Your task to perform on an android device: uninstall "Google Sheets" Image 0: 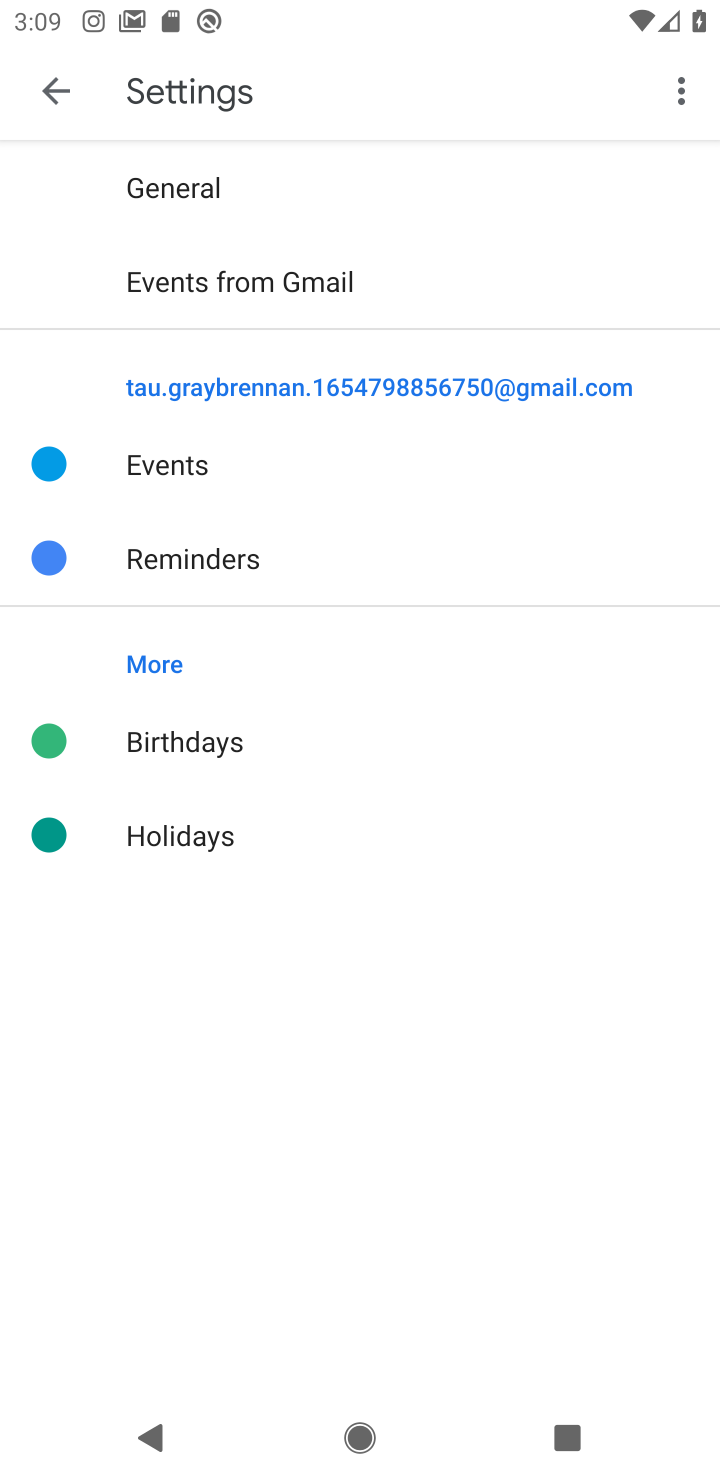
Step 0: press home button
Your task to perform on an android device: uninstall "Google Sheets" Image 1: 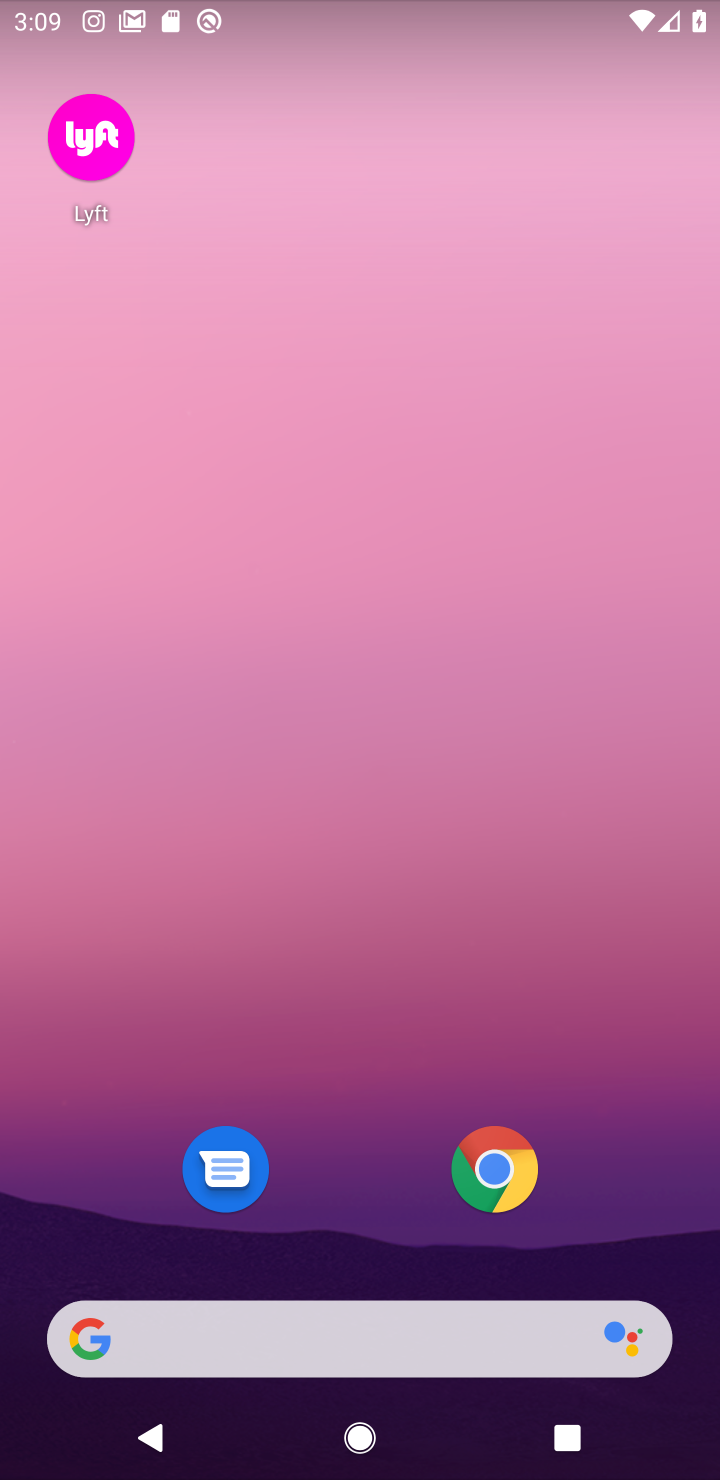
Step 1: drag from (338, 122) to (365, 43)
Your task to perform on an android device: uninstall "Google Sheets" Image 2: 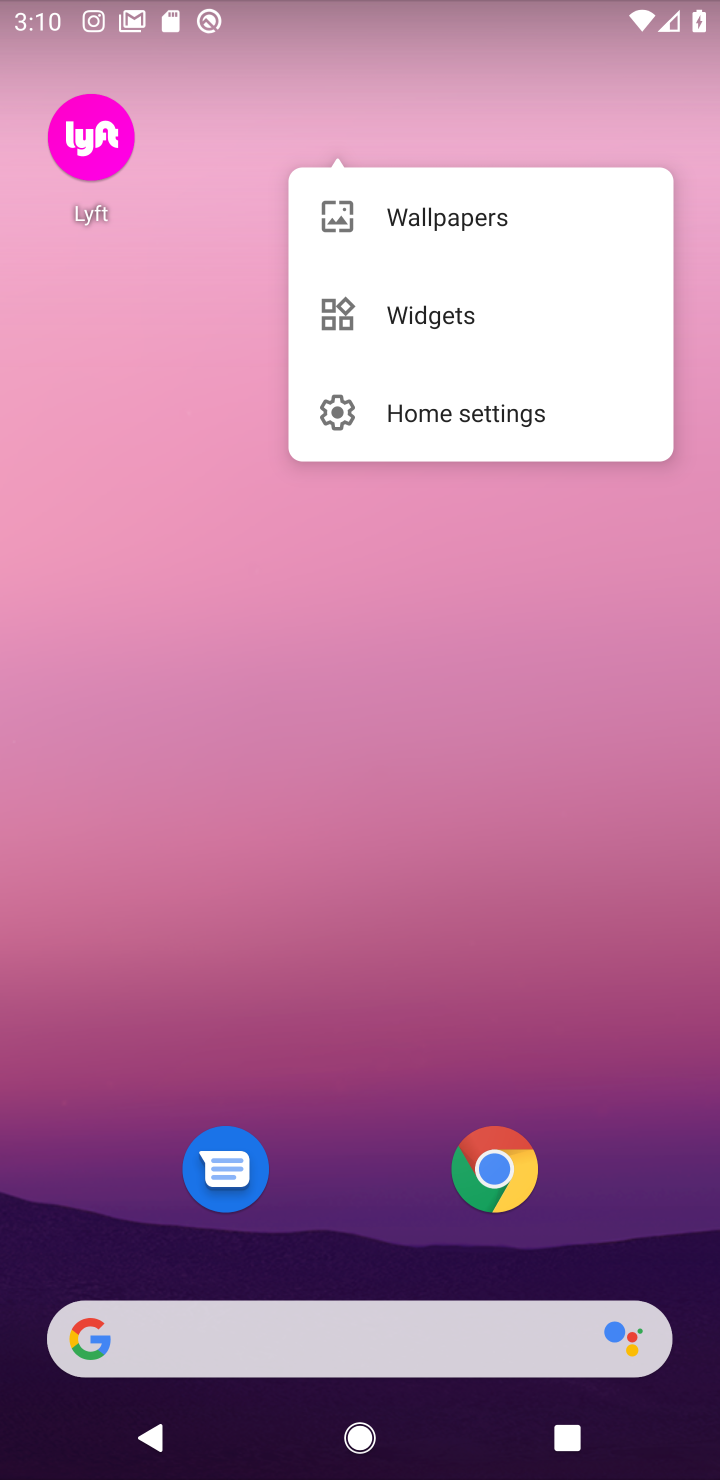
Step 2: click (299, 1141)
Your task to perform on an android device: uninstall "Google Sheets" Image 3: 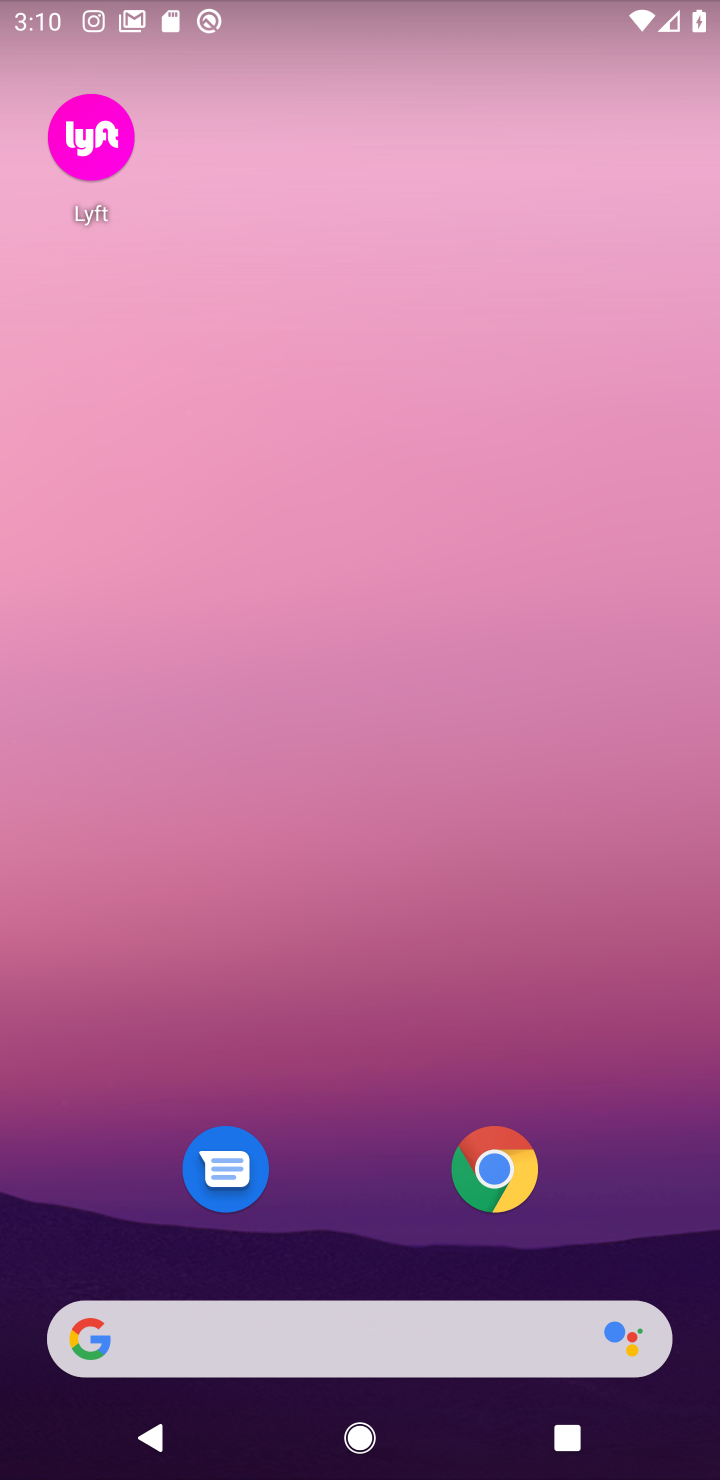
Step 3: drag from (284, 780) to (310, 147)
Your task to perform on an android device: uninstall "Google Sheets" Image 4: 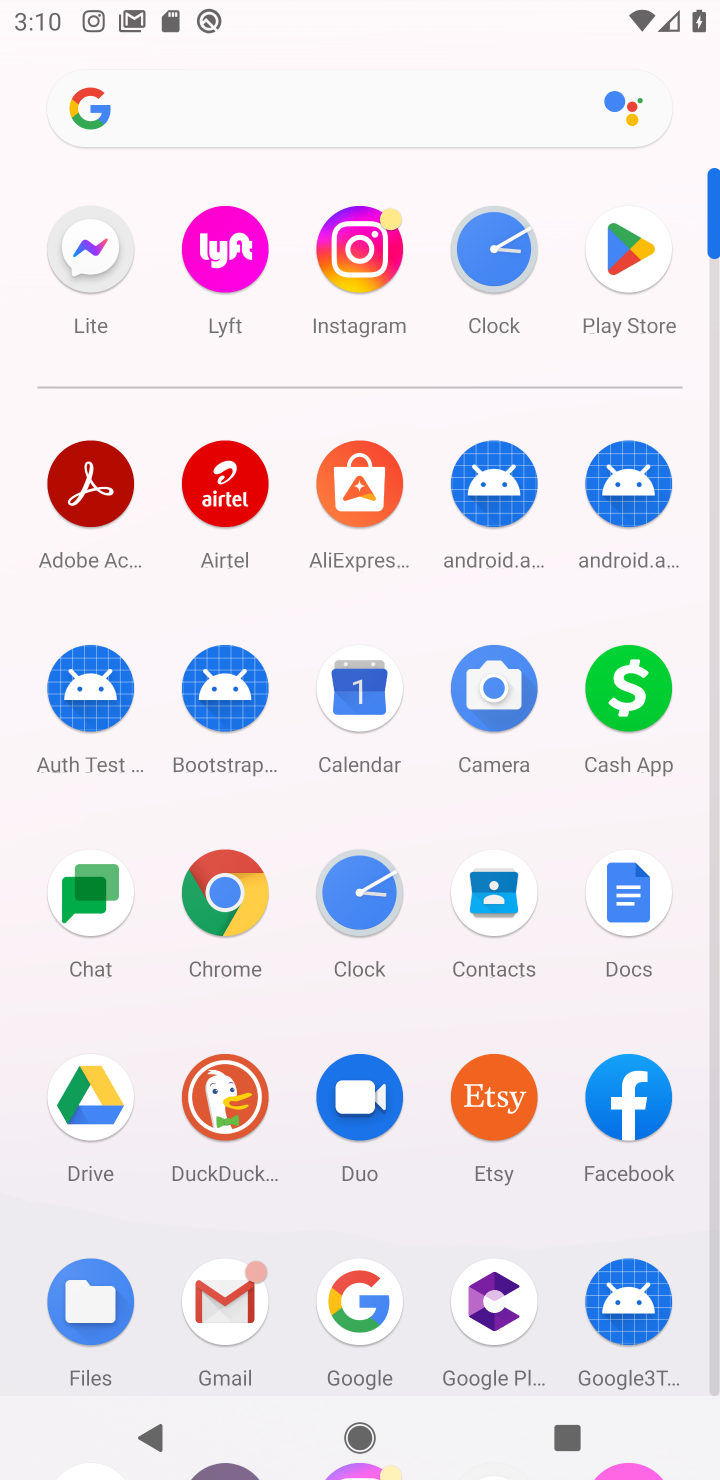
Step 4: click (638, 270)
Your task to perform on an android device: uninstall "Google Sheets" Image 5: 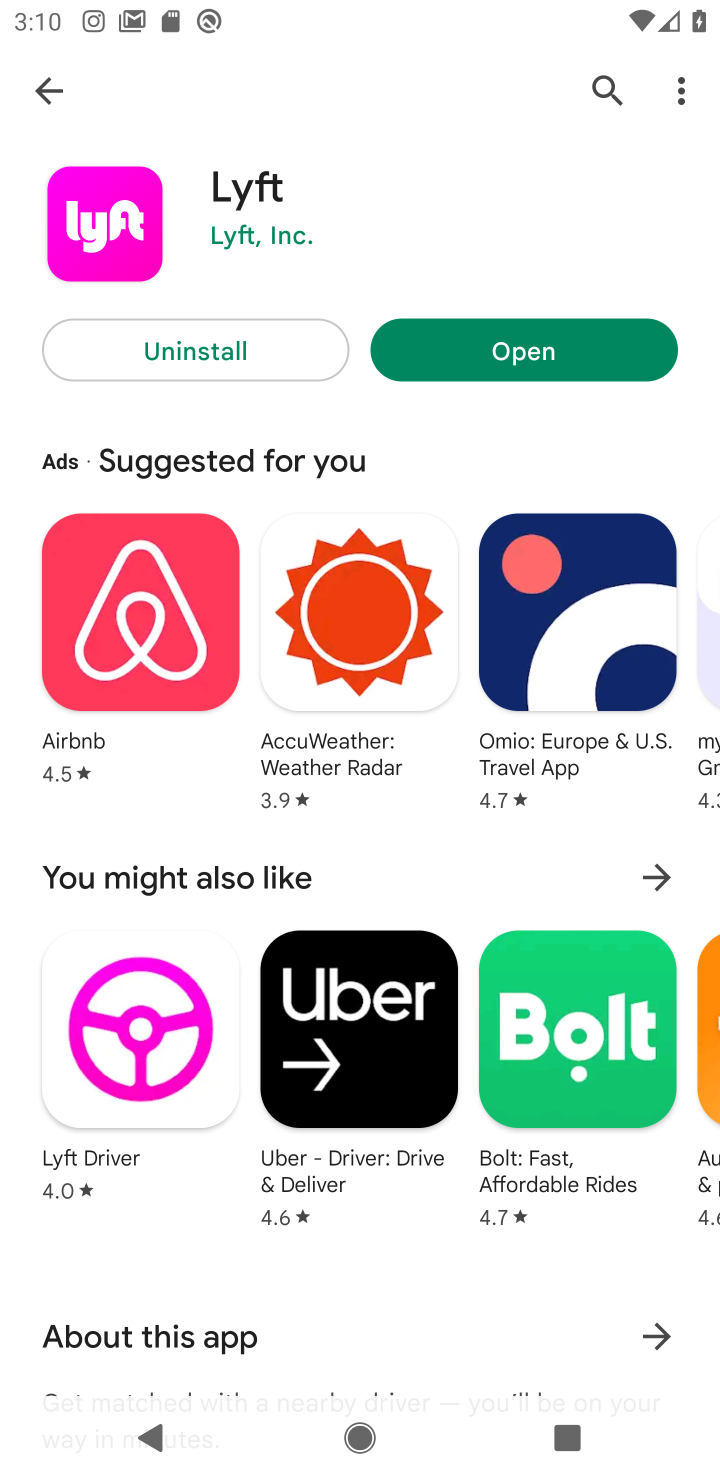
Step 5: click (44, 82)
Your task to perform on an android device: uninstall "Google Sheets" Image 6: 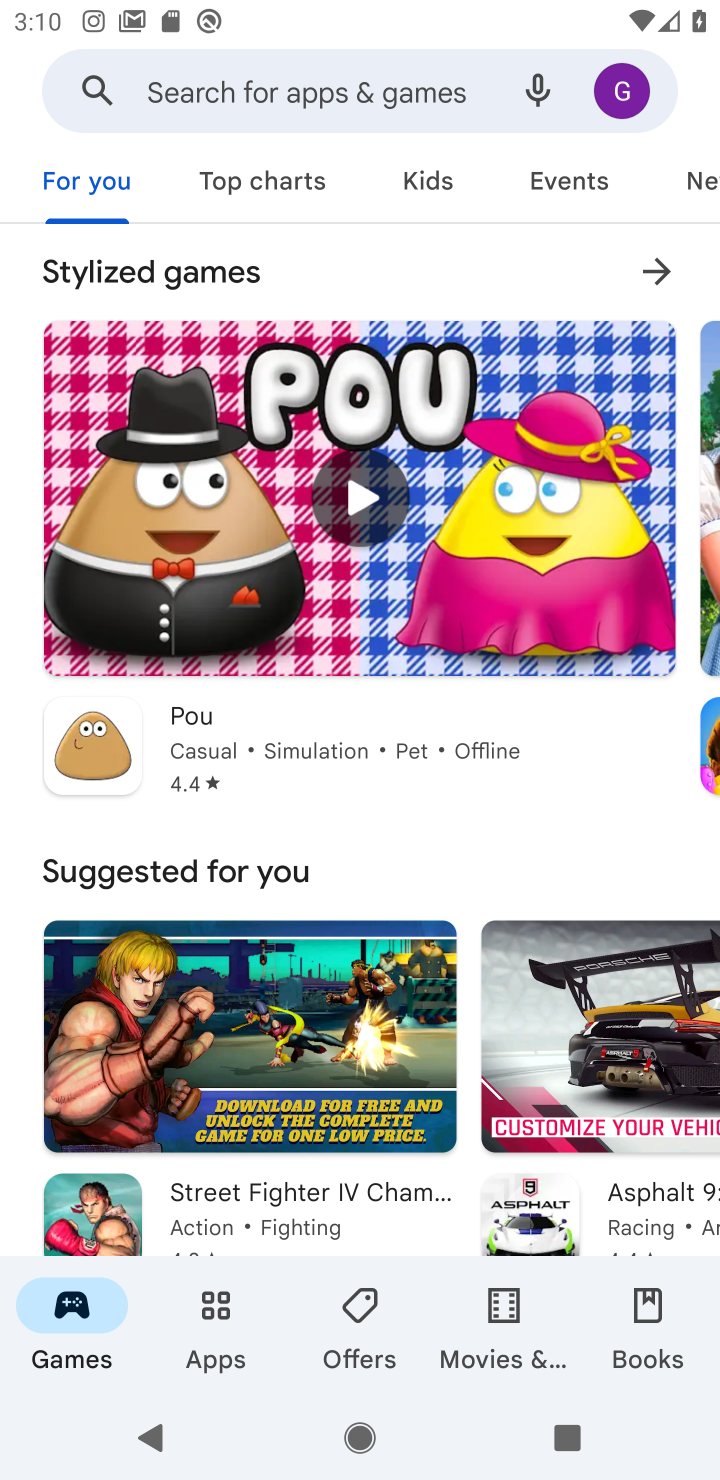
Step 6: click (207, 104)
Your task to perform on an android device: uninstall "Google Sheets" Image 7: 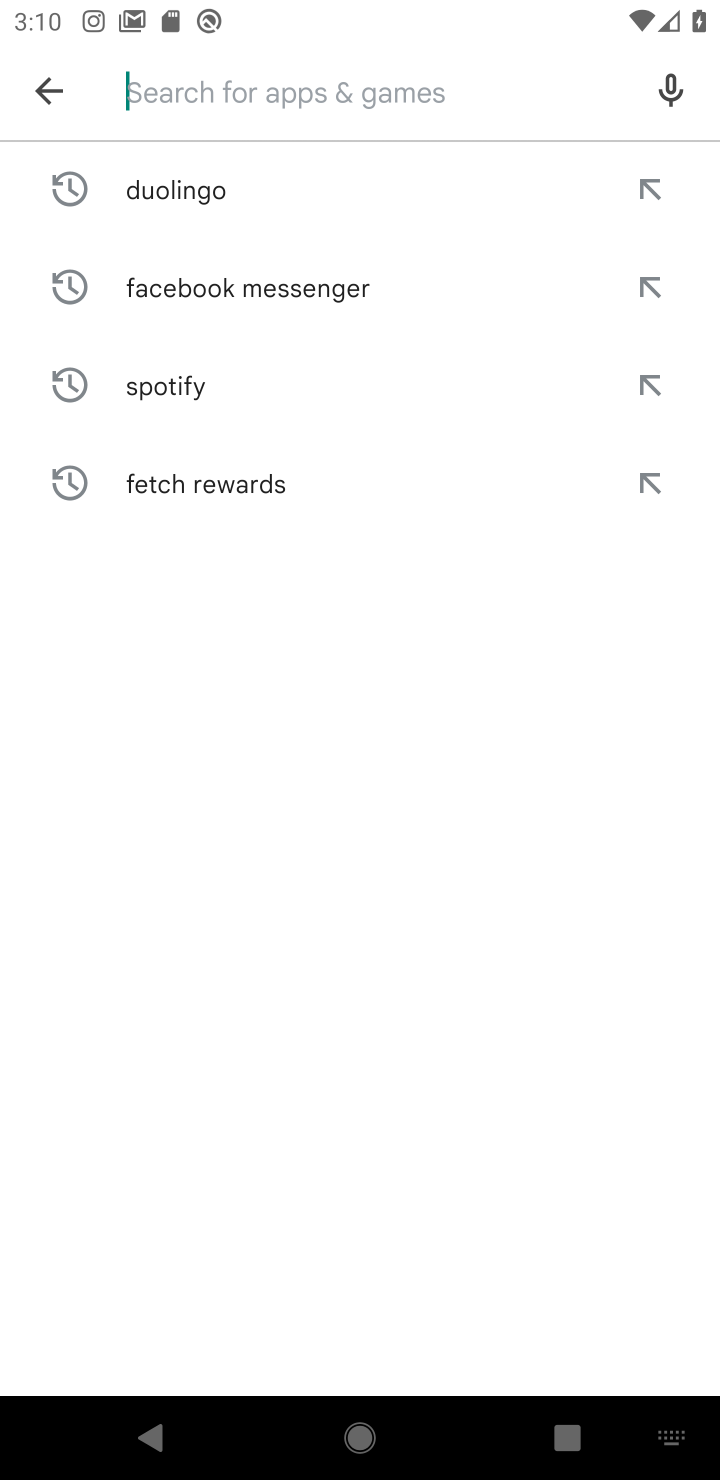
Step 7: type "google sheets"
Your task to perform on an android device: uninstall "Google Sheets" Image 8: 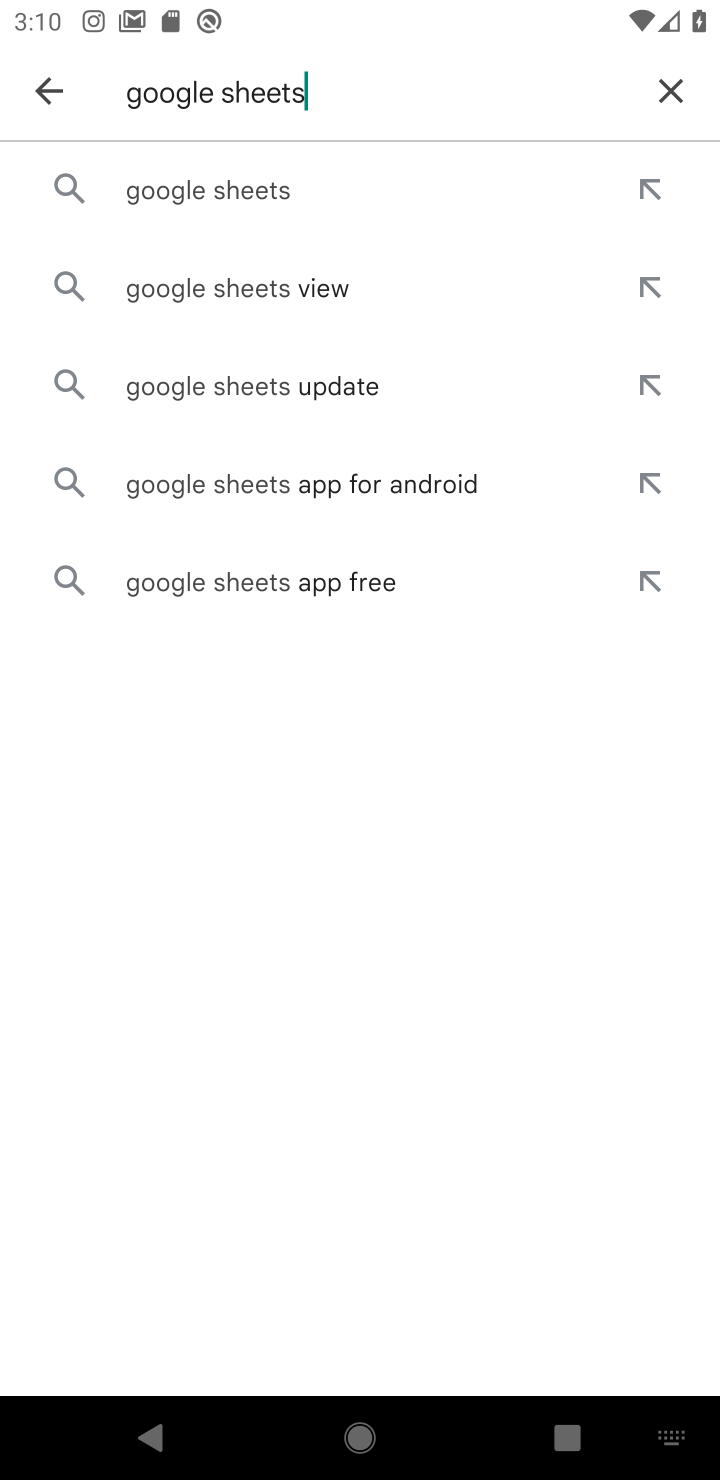
Step 8: click (188, 202)
Your task to perform on an android device: uninstall "Google Sheets" Image 9: 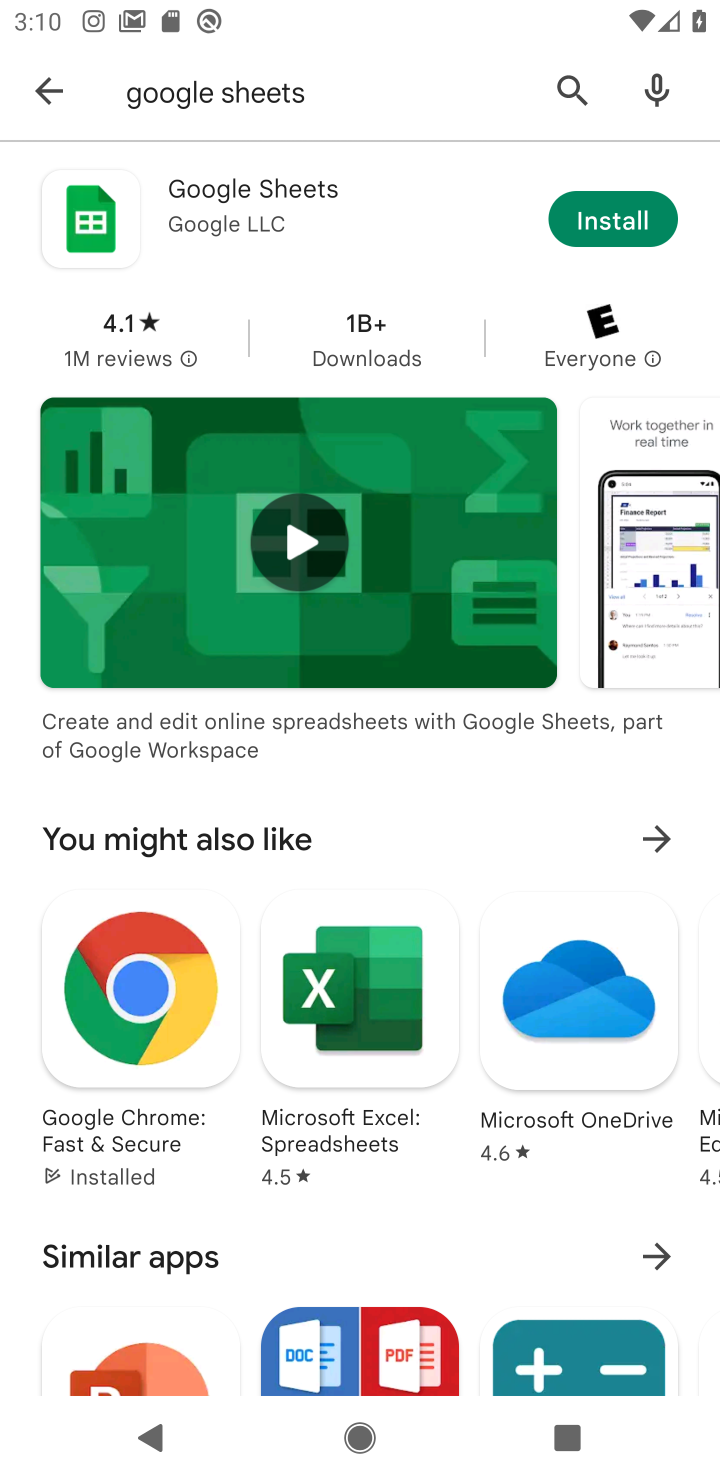
Step 9: click (585, 218)
Your task to perform on an android device: uninstall "Google Sheets" Image 10: 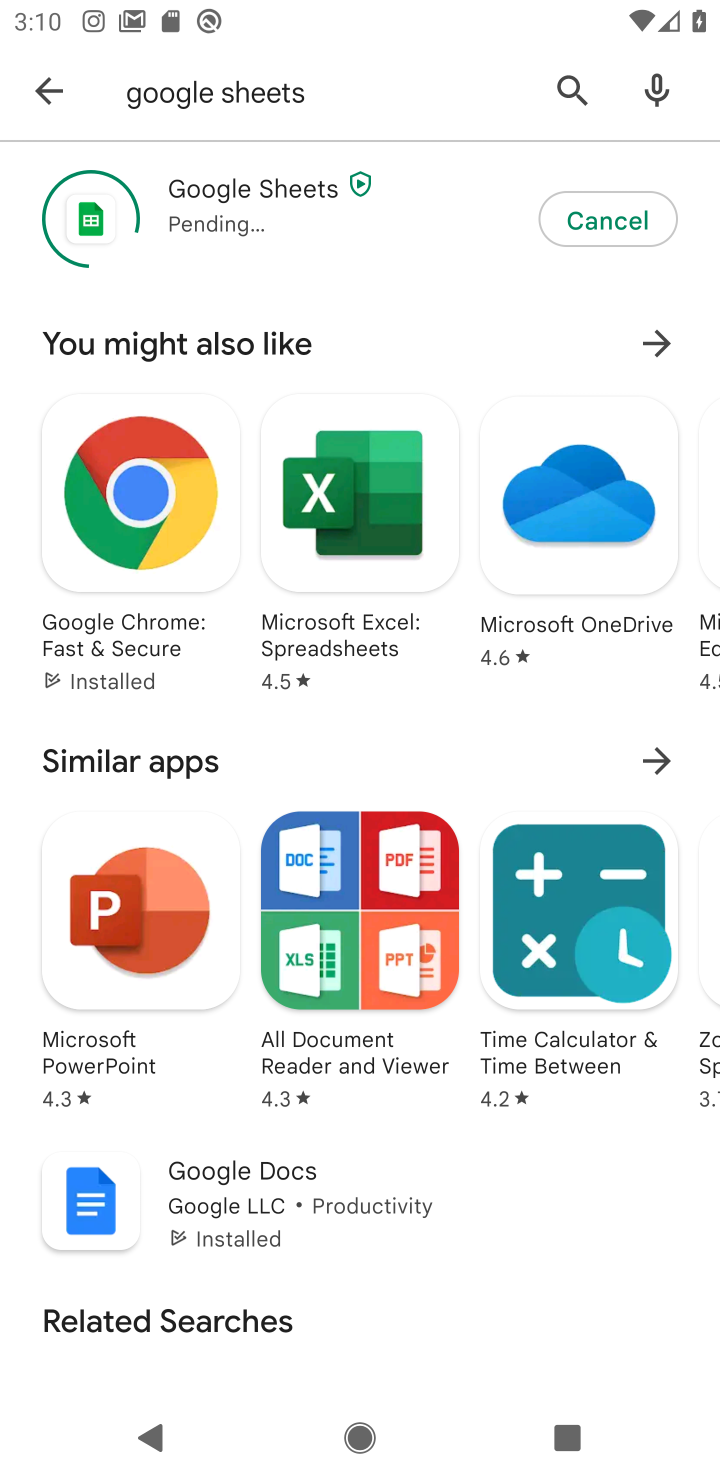
Step 10: click (631, 217)
Your task to perform on an android device: uninstall "Google Sheets" Image 11: 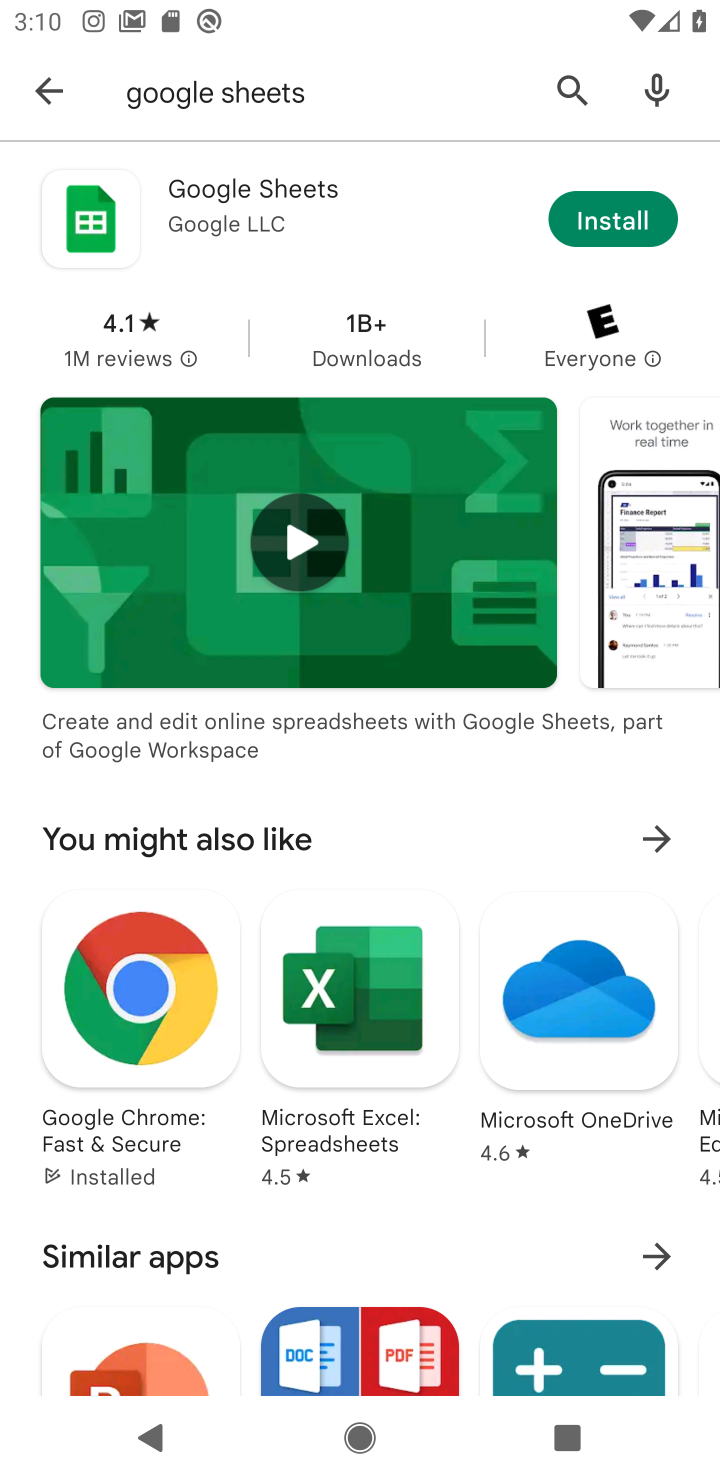
Step 11: task complete